Your task to perform on an android device: set the stopwatch Image 0: 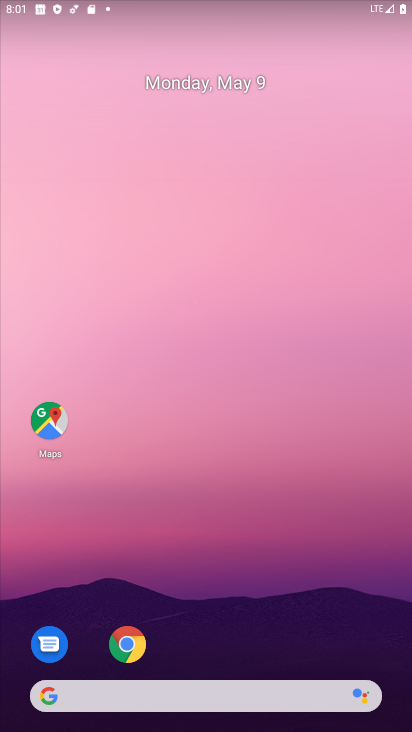
Step 0: drag from (211, 664) to (258, 254)
Your task to perform on an android device: set the stopwatch Image 1: 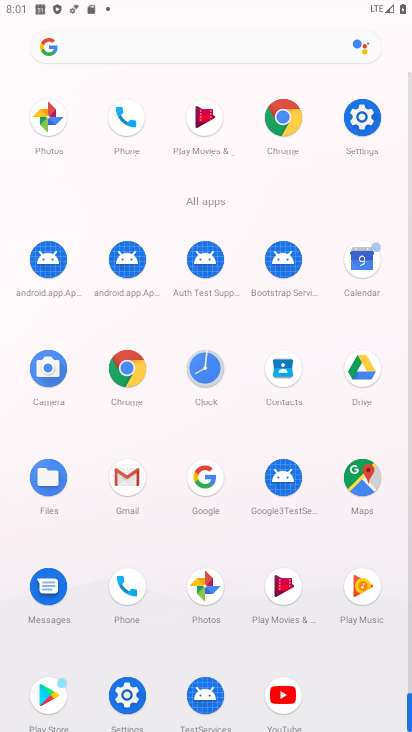
Step 1: click (203, 371)
Your task to perform on an android device: set the stopwatch Image 2: 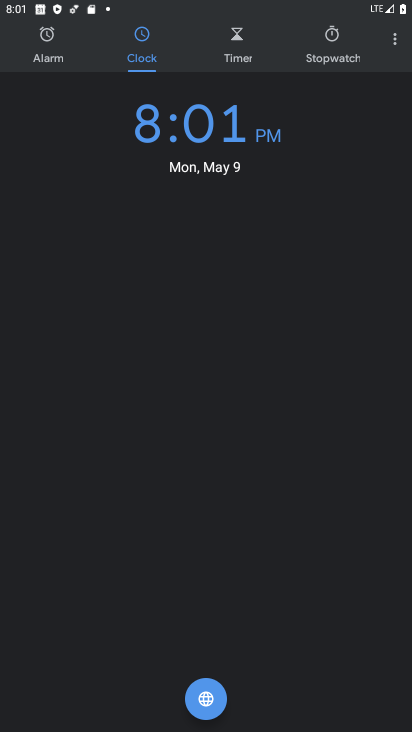
Step 2: click (324, 39)
Your task to perform on an android device: set the stopwatch Image 3: 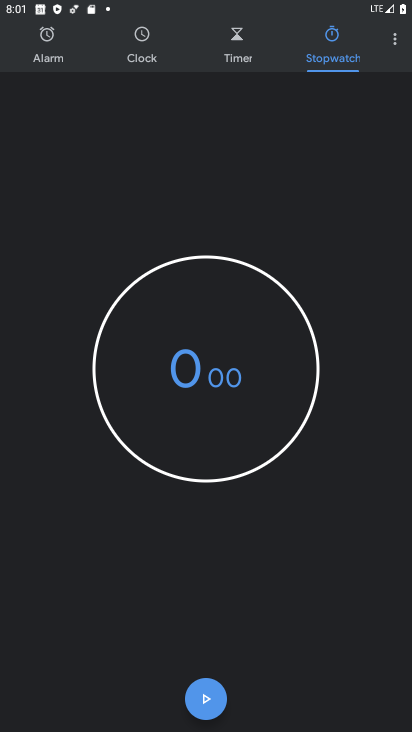
Step 3: click (198, 371)
Your task to perform on an android device: set the stopwatch Image 4: 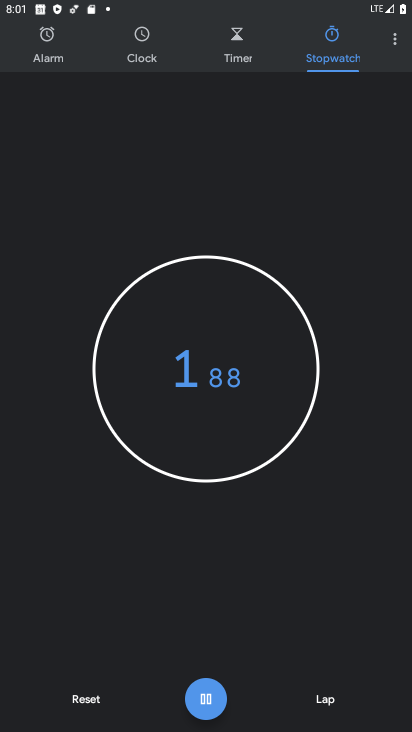
Step 4: click (198, 371)
Your task to perform on an android device: set the stopwatch Image 5: 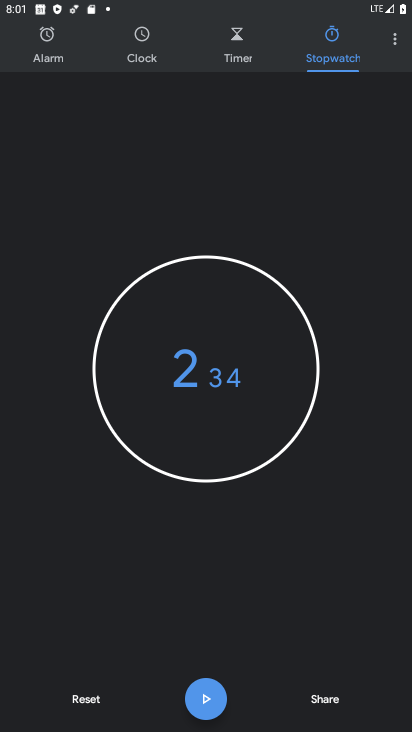
Step 5: task complete